Your task to perform on an android device: Open calendar and show me the first week of next month Image 0: 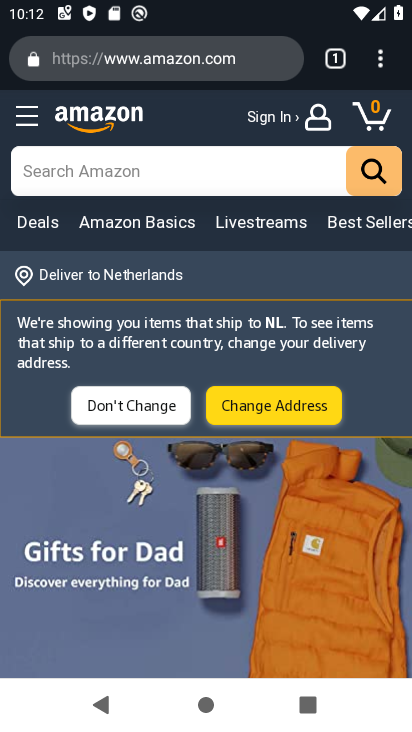
Step 0: press home button
Your task to perform on an android device: Open calendar and show me the first week of next month Image 1: 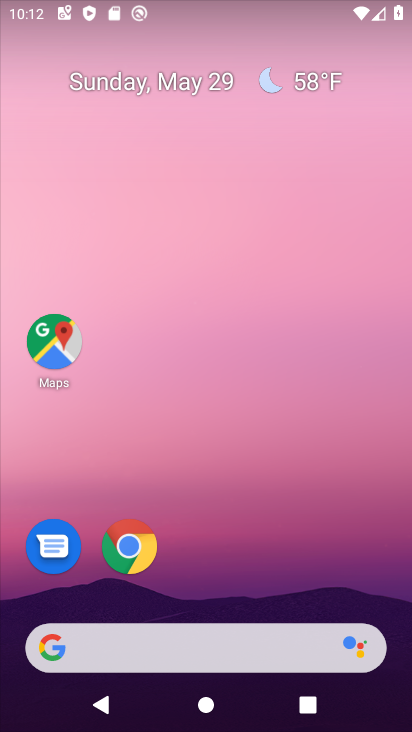
Step 1: click (409, 552)
Your task to perform on an android device: Open calendar and show me the first week of next month Image 2: 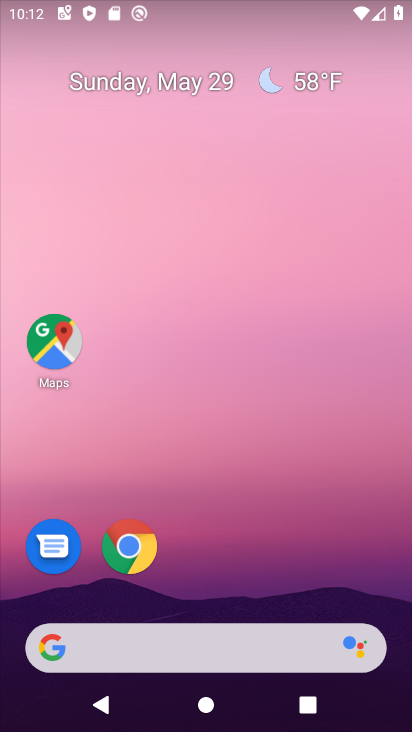
Step 2: drag from (374, 568) to (346, 242)
Your task to perform on an android device: Open calendar and show me the first week of next month Image 3: 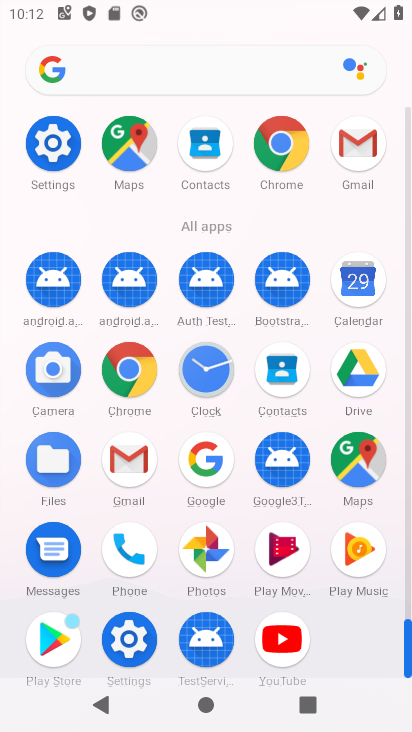
Step 3: click (347, 240)
Your task to perform on an android device: Open calendar and show me the first week of next month Image 4: 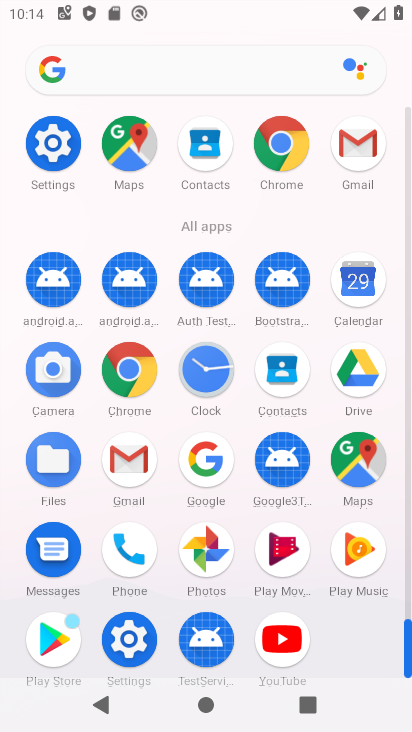
Step 4: click (357, 293)
Your task to perform on an android device: Open calendar and show me the first week of next month Image 5: 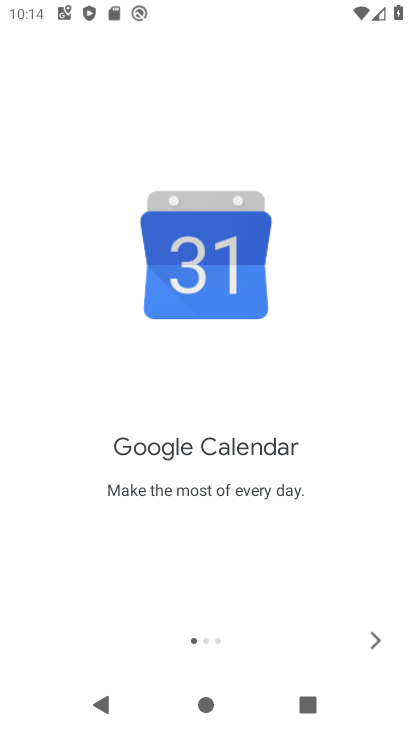
Step 5: click (372, 632)
Your task to perform on an android device: Open calendar and show me the first week of next month Image 6: 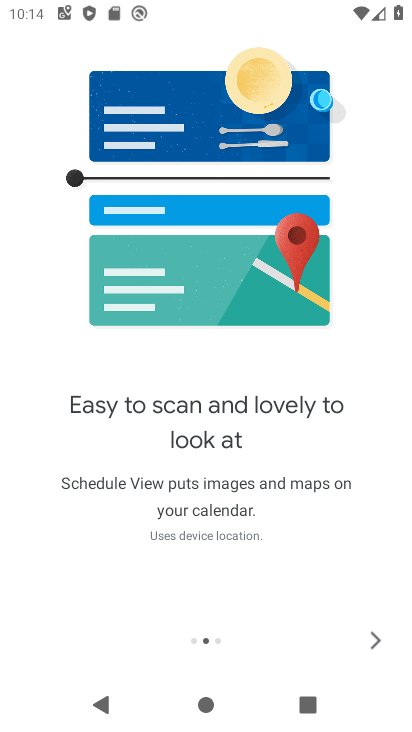
Step 6: click (372, 632)
Your task to perform on an android device: Open calendar and show me the first week of next month Image 7: 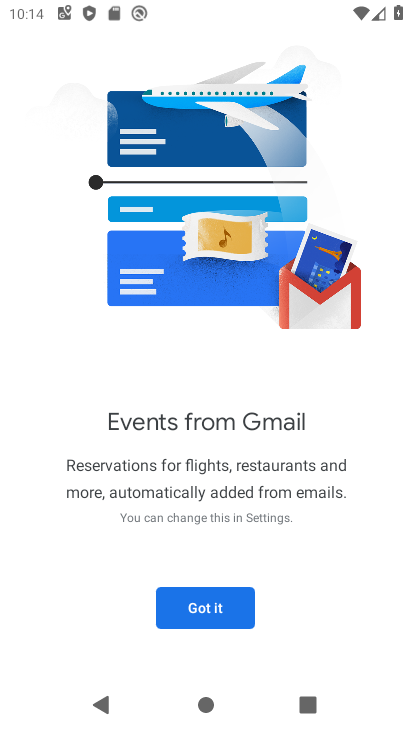
Step 7: click (253, 609)
Your task to perform on an android device: Open calendar and show me the first week of next month Image 8: 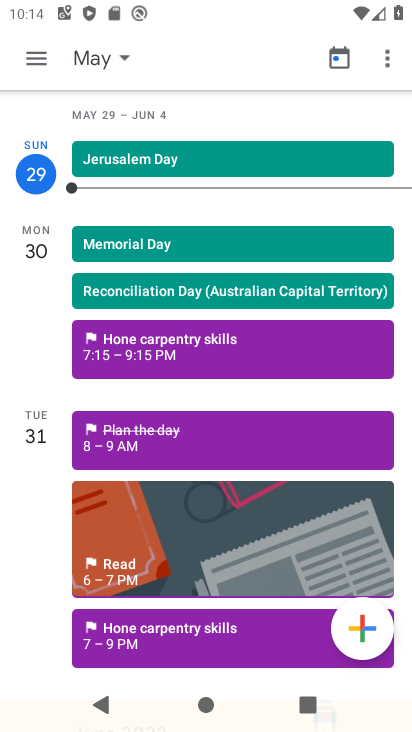
Step 8: click (44, 62)
Your task to perform on an android device: Open calendar and show me the first week of next month Image 9: 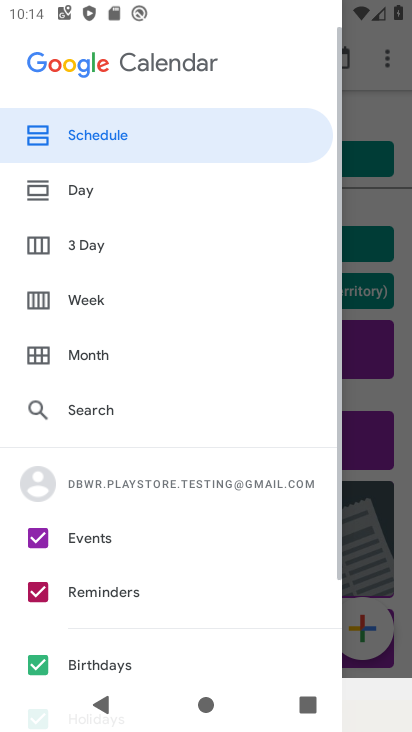
Step 9: click (101, 290)
Your task to perform on an android device: Open calendar and show me the first week of next month Image 10: 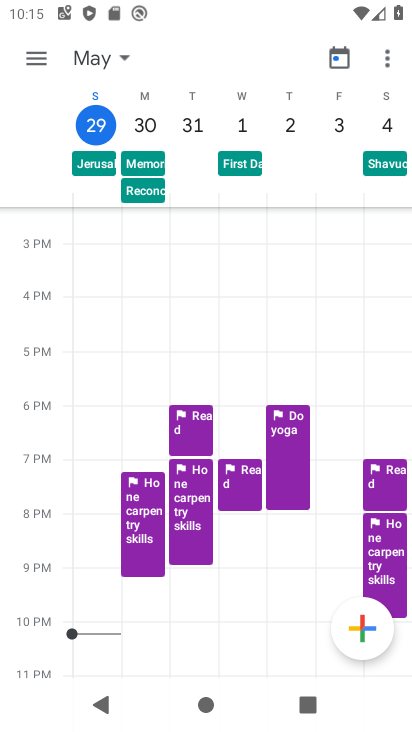
Step 10: click (124, 61)
Your task to perform on an android device: Open calendar and show me the first week of next month Image 11: 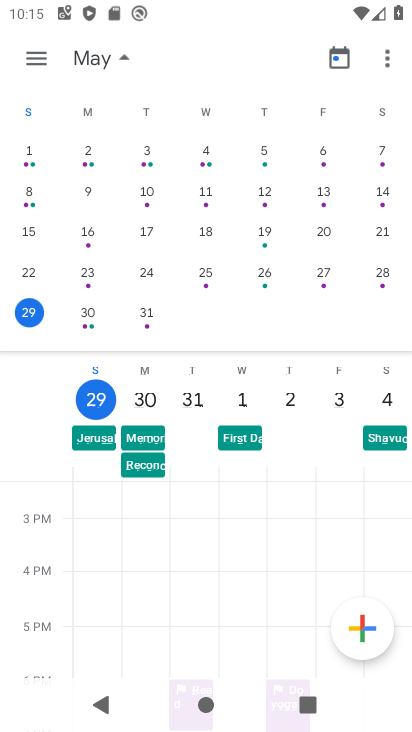
Step 11: drag from (293, 241) to (29, 220)
Your task to perform on an android device: Open calendar and show me the first week of next month Image 12: 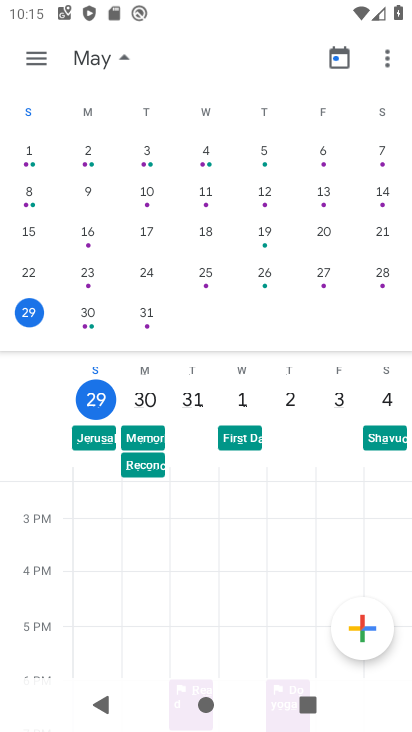
Step 12: click (25, 190)
Your task to perform on an android device: Open calendar and show me the first week of next month Image 13: 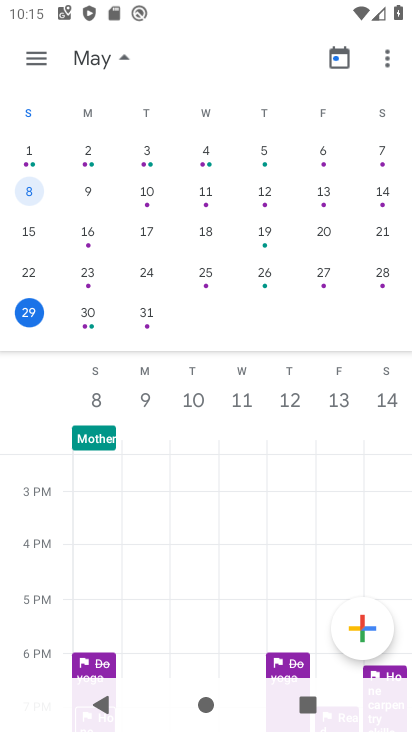
Step 13: click (31, 151)
Your task to perform on an android device: Open calendar and show me the first week of next month Image 14: 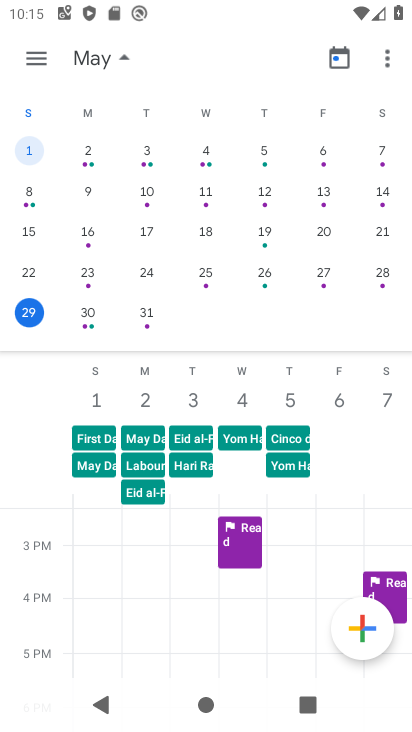
Step 14: task complete